Your task to perform on an android device: turn on sleep mode Image 0: 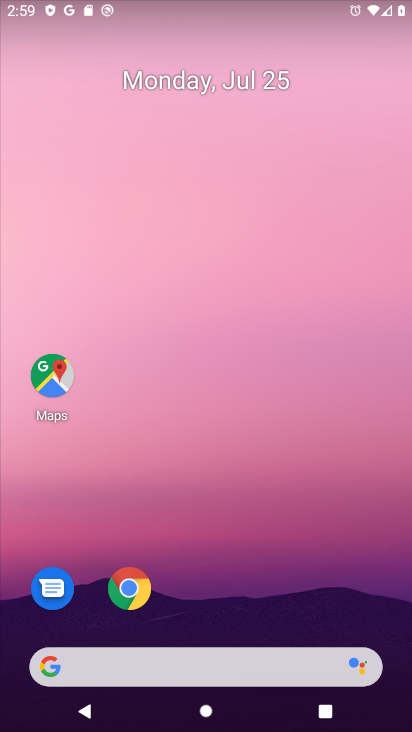
Step 0: press home button
Your task to perform on an android device: turn on sleep mode Image 1: 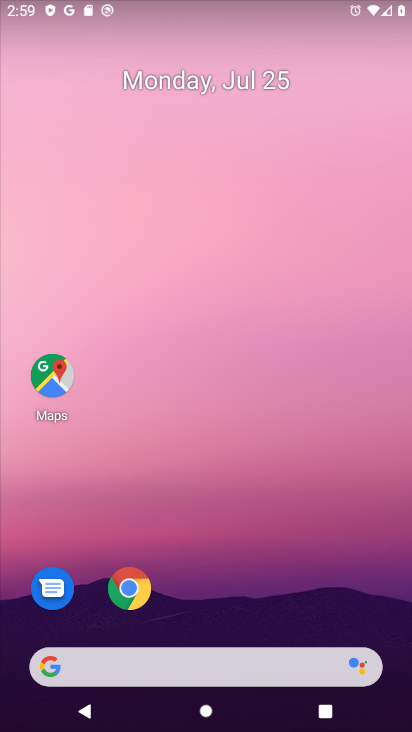
Step 1: drag from (213, 629) to (230, 21)
Your task to perform on an android device: turn on sleep mode Image 2: 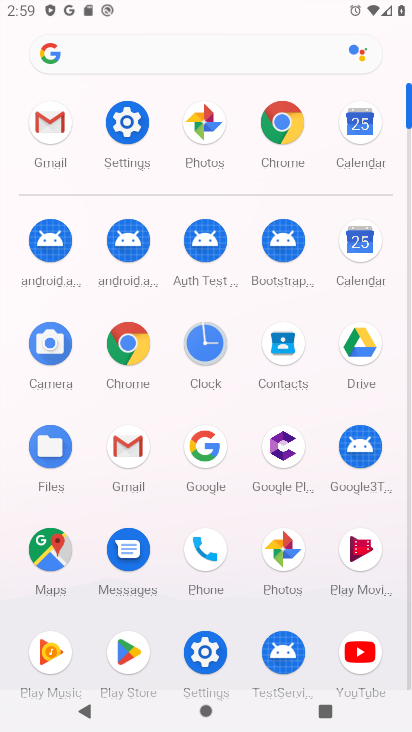
Step 2: click (126, 115)
Your task to perform on an android device: turn on sleep mode Image 3: 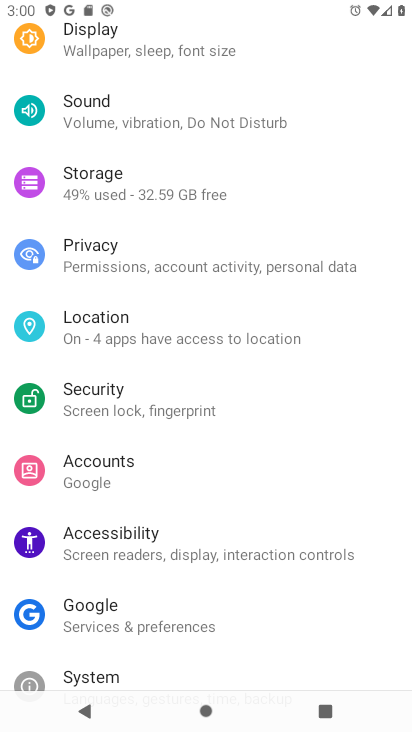
Step 3: drag from (183, 126) to (210, 473)
Your task to perform on an android device: turn on sleep mode Image 4: 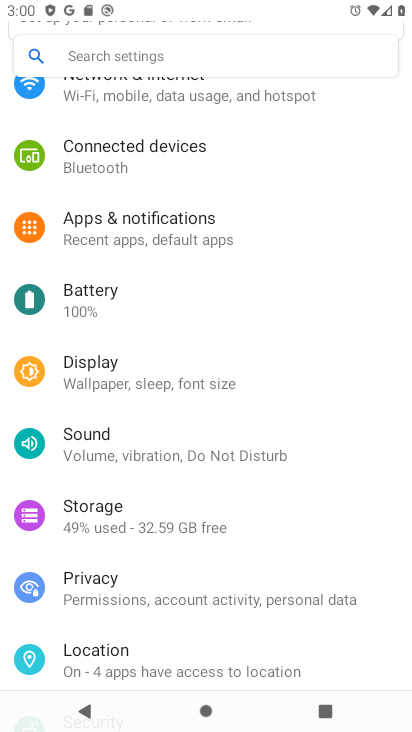
Step 4: click (140, 362)
Your task to perform on an android device: turn on sleep mode Image 5: 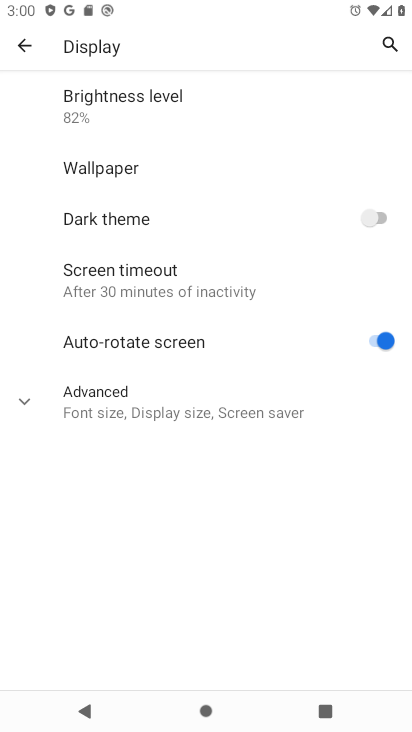
Step 5: click (62, 404)
Your task to perform on an android device: turn on sleep mode Image 6: 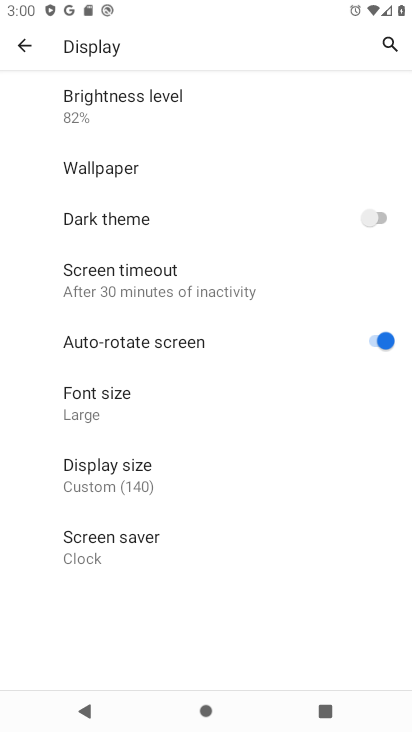
Step 6: task complete